Your task to perform on an android device: open a bookmark in the chrome app Image 0: 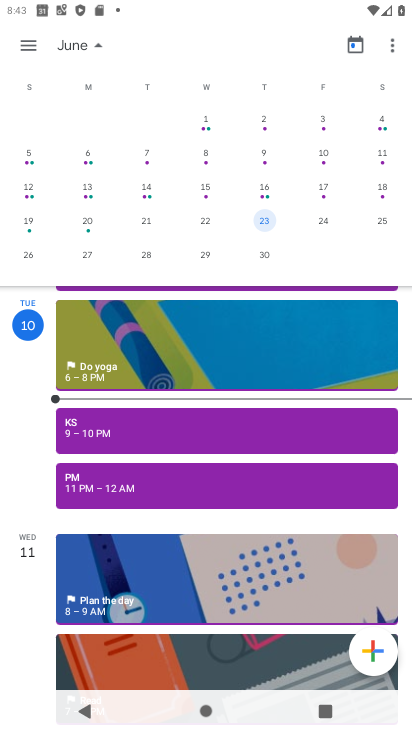
Step 0: press home button
Your task to perform on an android device: open a bookmark in the chrome app Image 1: 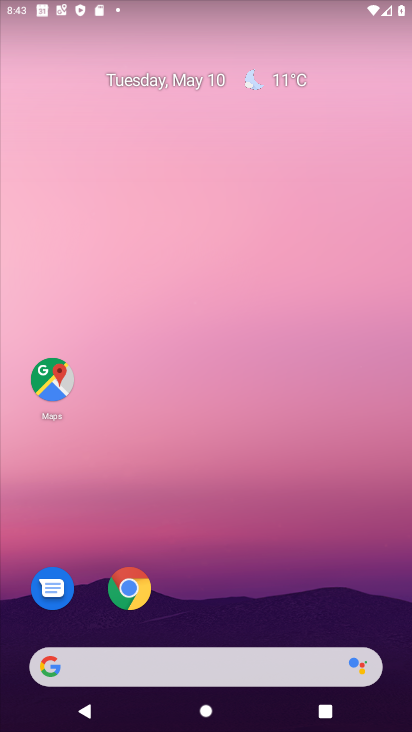
Step 1: click (130, 586)
Your task to perform on an android device: open a bookmark in the chrome app Image 2: 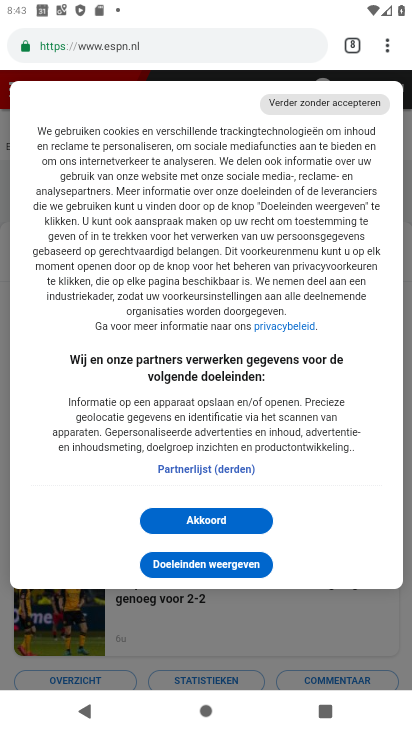
Step 2: click (378, 44)
Your task to perform on an android device: open a bookmark in the chrome app Image 3: 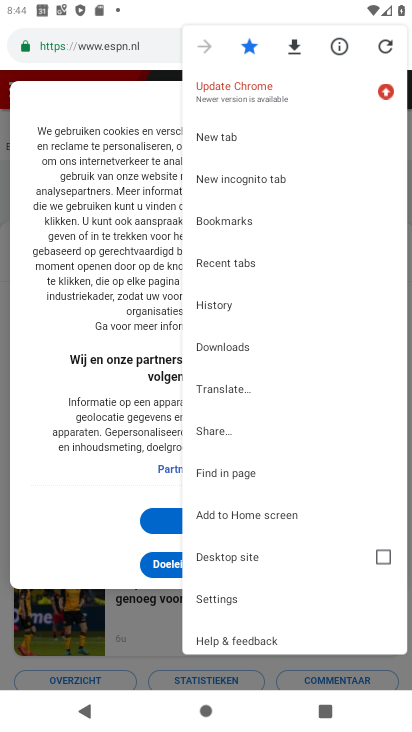
Step 3: click (277, 219)
Your task to perform on an android device: open a bookmark in the chrome app Image 4: 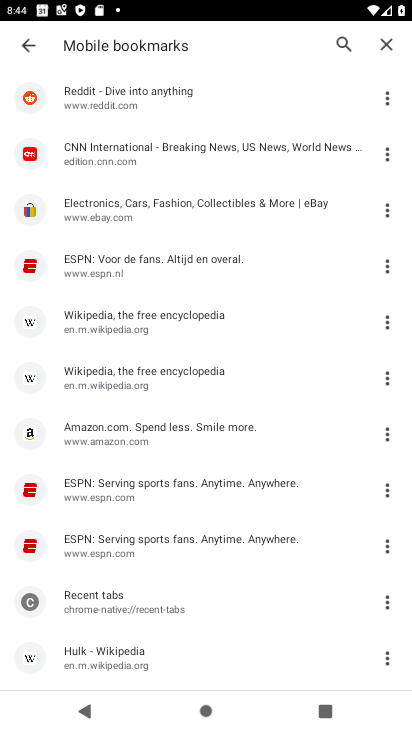
Step 4: click (177, 153)
Your task to perform on an android device: open a bookmark in the chrome app Image 5: 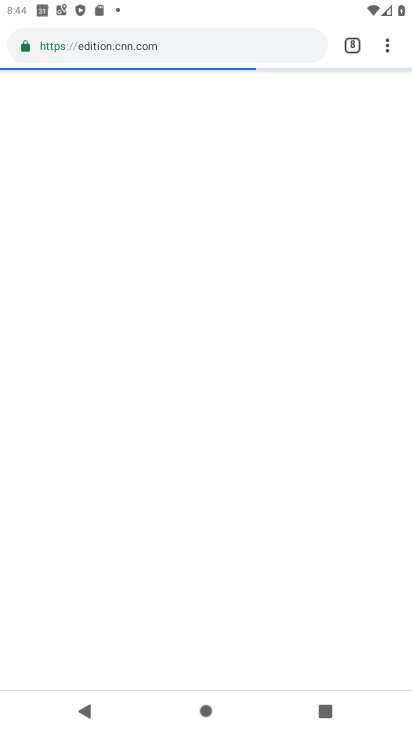
Step 5: task complete